Your task to perform on an android device: Open my contact list Image 0: 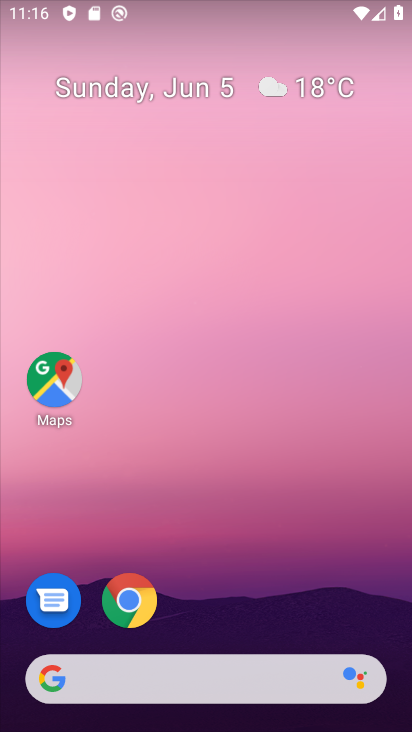
Step 0: drag from (238, 658) to (167, 184)
Your task to perform on an android device: Open my contact list Image 1: 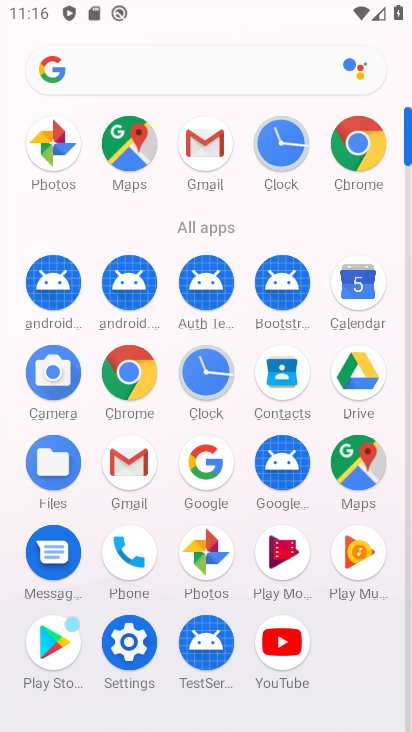
Step 1: click (269, 374)
Your task to perform on an android device: Open my contact list Image 2: 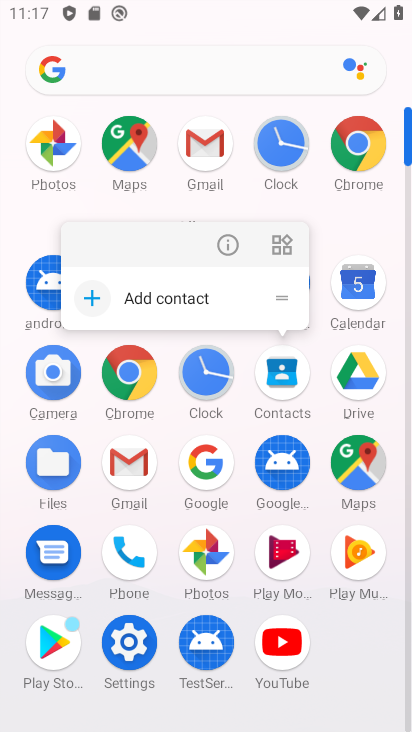
Step 2: click (178, 250)
Your task to perform on an android device: Open my contact list Image 3: 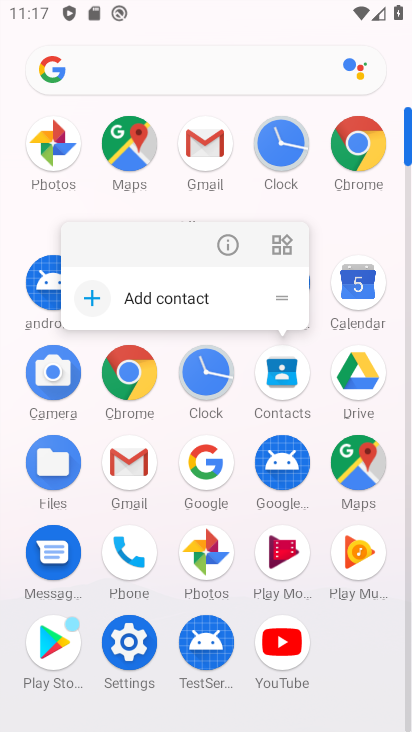
Step 3: click (157, 266)
Your task to perform on an android device: Open my contact list Image 4: 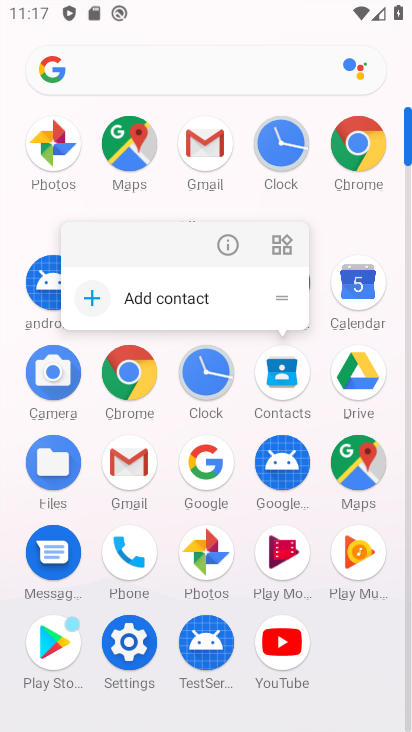
Step 4: click (150, 275)
Your task to perform on an android device: Open my contact list Image 5: 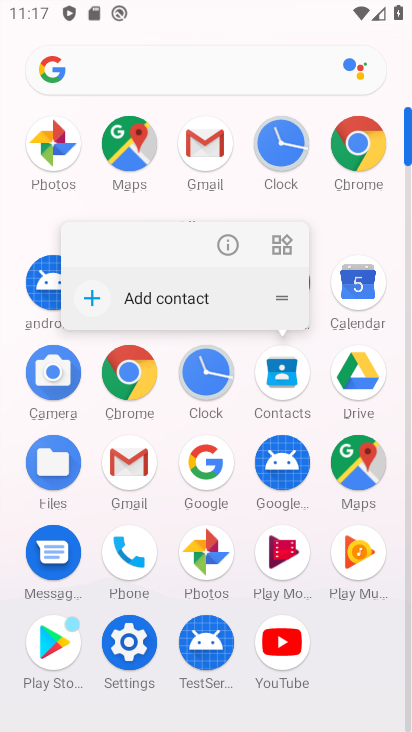
Step 5: click (143, 283)
Your task to perform on an android device: Open my contact list Image 6: 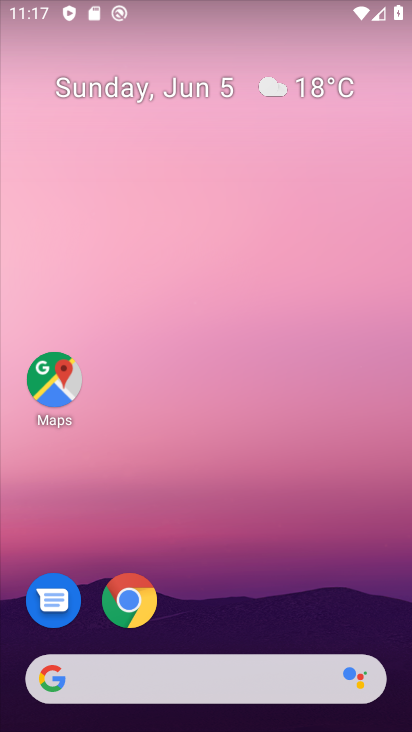
Step 6: drag from (226, 603) to (219, 60)
Your task to perform on an android device: Open my contact list Image 7: 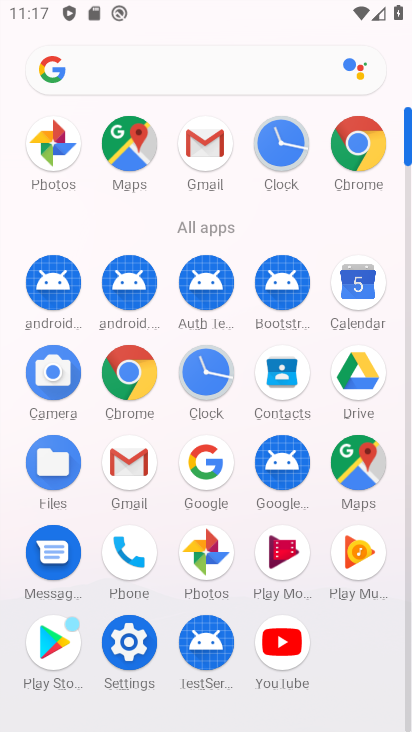
Step 7: click (276, 390)
Your task to perform on an android device: Open my contact list Image 8: 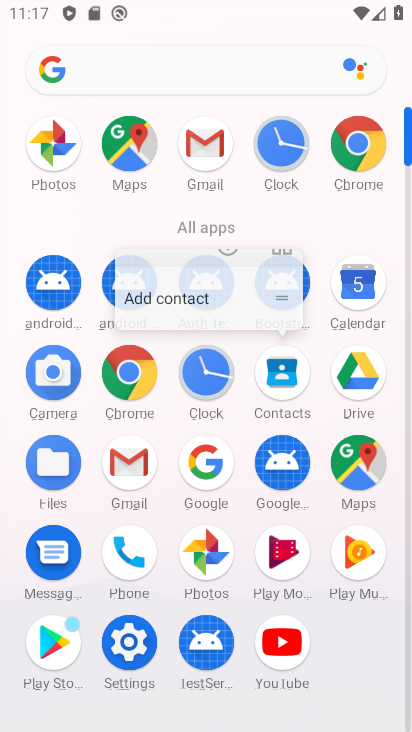
Step 8: click (275, 364)
Your task to perform on an android device: Open my contact list Image 9: 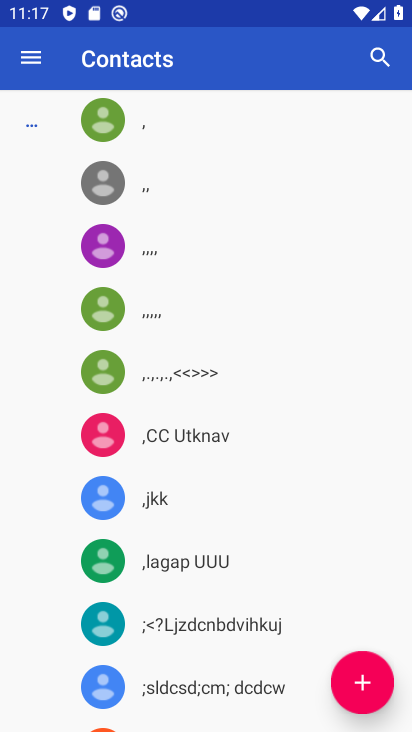
Step 9: click (281, 368)
Your task to perform on an android device: Open my contact list Image 10: 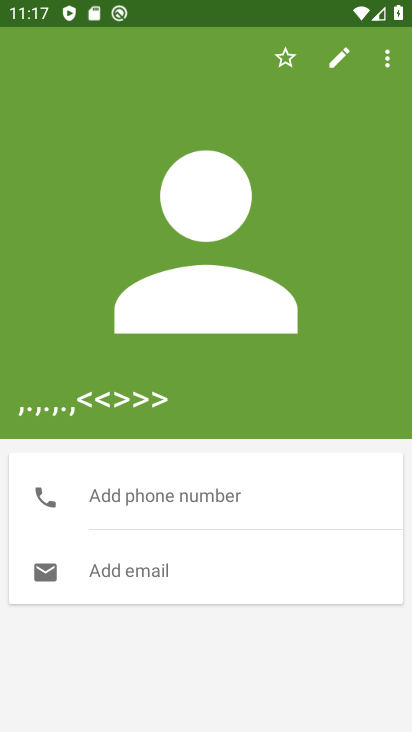
Step 10: task complete